Your task to perform on an android device: turn on the 24-hour format for clock Image 0: 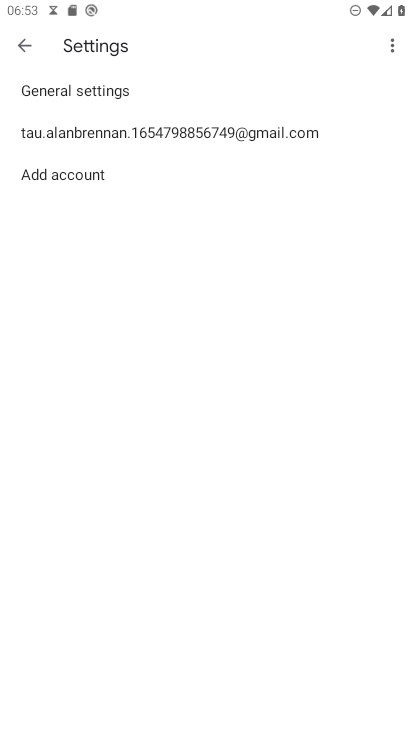
Step 0: press home button
Your task to perform on an android device: turn on the 24-hour format for clock Image 1: 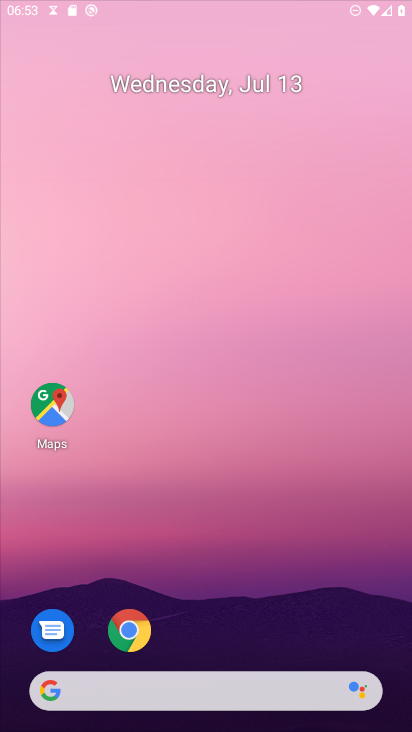
Step 1: drag from (343, 708) to (333, 46)
Your task to perform on an android device: turn on the 24-hour format for clock Image 2: 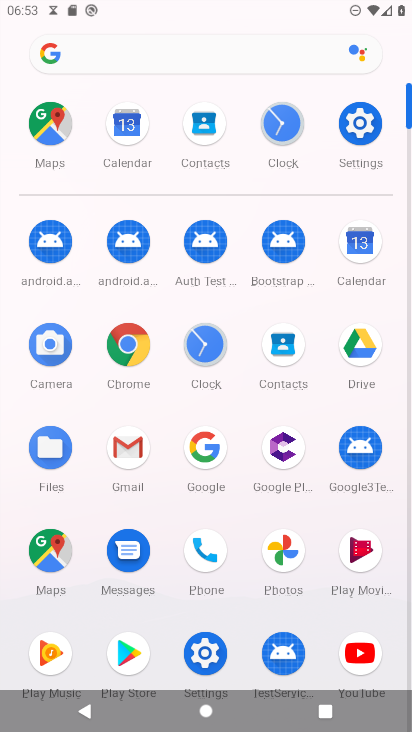
Step 2: click (215, 346)
Your task to perform on an android device: turn on the 24-hour format for clock Image 3: 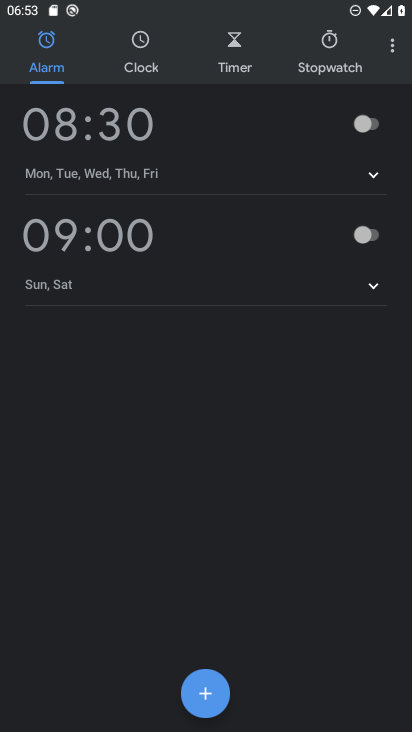
Step 3: click (397, 42)
Your task to perform on an android device: turn on the 24-hour format for clock Image 4: 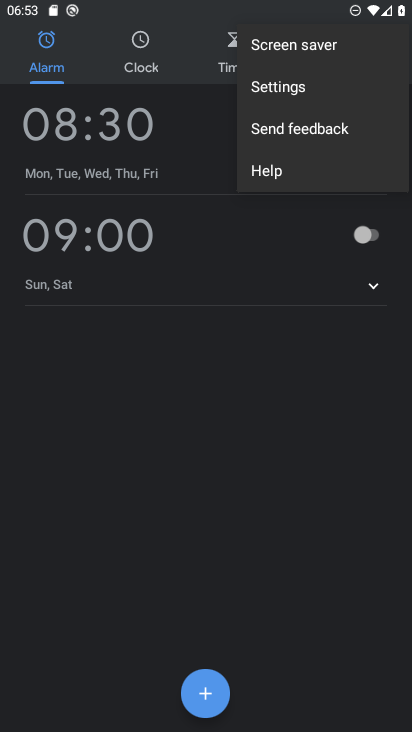
Step 4: click (303, 77)
Your task to perform on an android device: turn on the 24-hour format for clock Image 5: 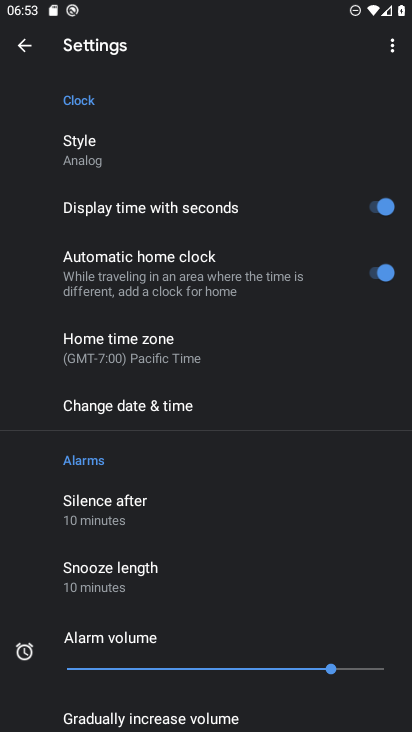
Step 5: click (187, 402)
Your task to perform on an android device: turn on the 24-hour format for clock Image 6: 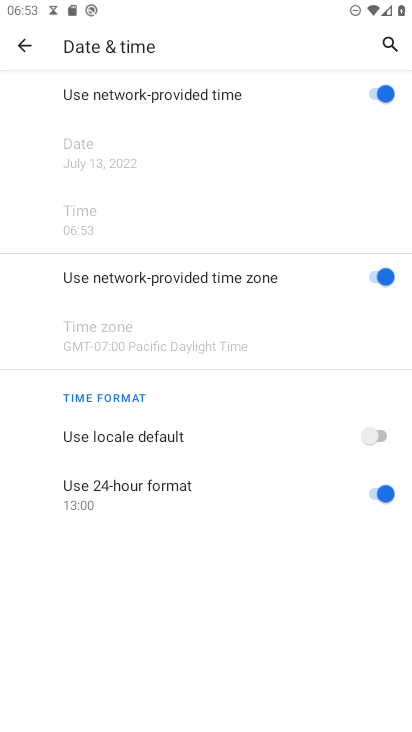
Step 6: task complete